Your task to perform on an android device: find which apps use the phone's location Image 0: 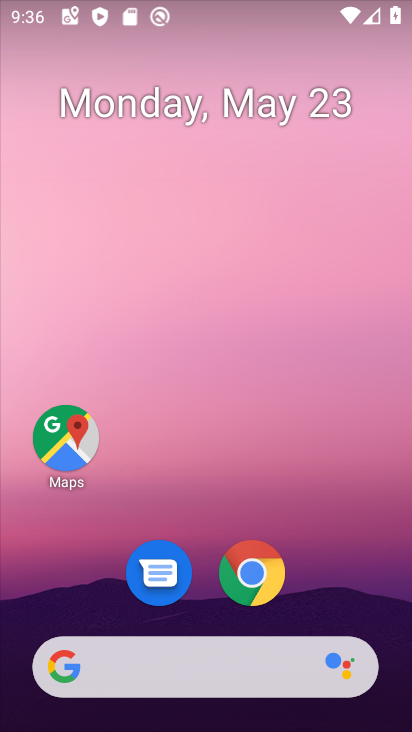
Step 0: drag from (366, 614) to (373, 184)
Your task to perform on an android device: find which apps use the phone's location Image 1: 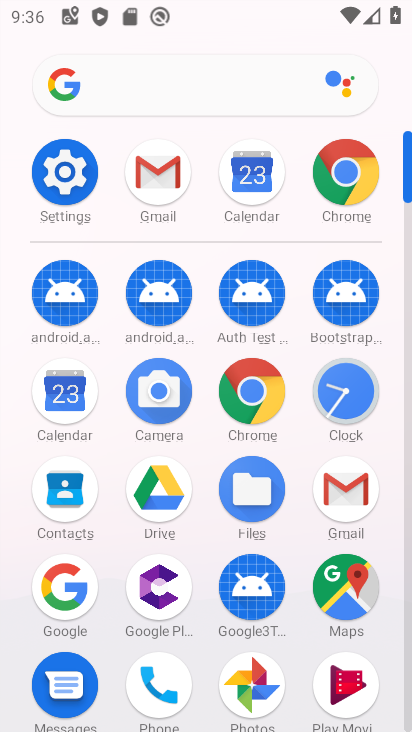
Step 1: click (84, 173)
Your task to perform on an android device: find which apps use the phone's location Image 2: 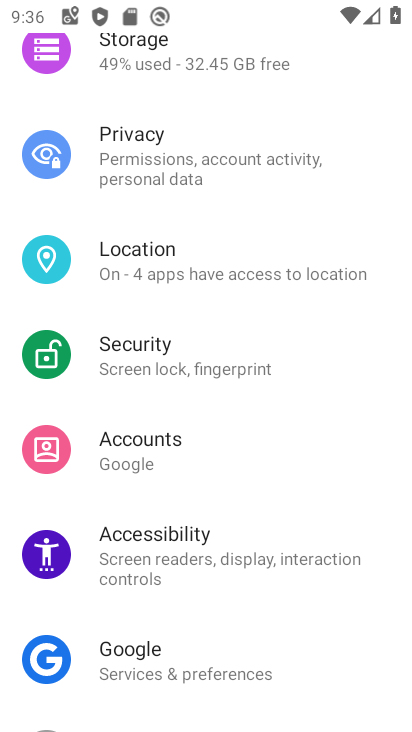
Step 2: drag from (391, 593) to (391, 411)
Your task to perform on an android device: find which apps use the phone's location Image 3: 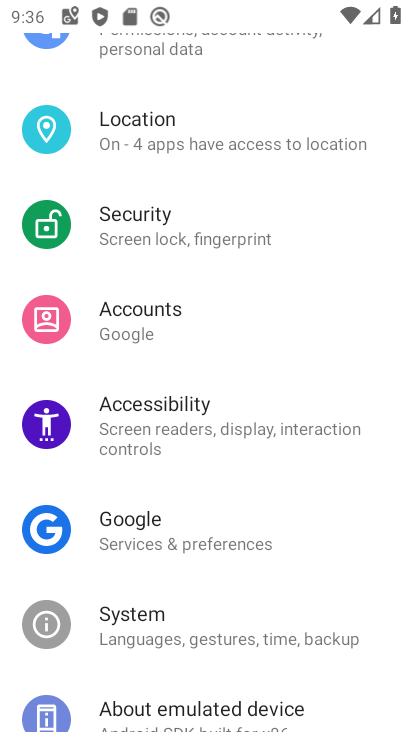
Step 3: drag from (376, 577) to (370, 417)
Your task to perform on an android device: find which apps use the phone's location Image 4: 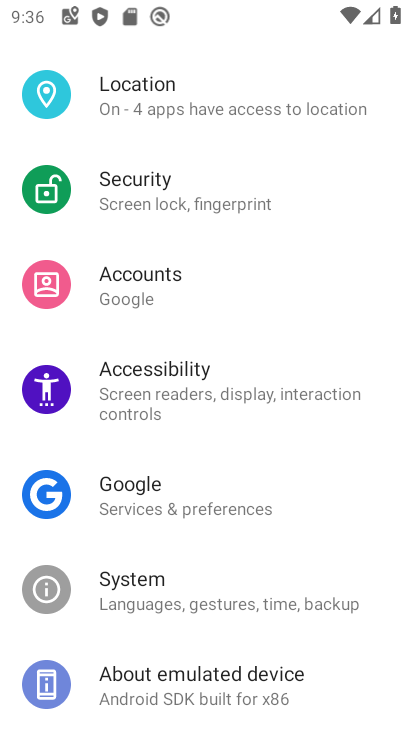
Step 4: drag from (374, 307) to (353, 453)
Your task to perform on an android device: find which apps use the phone's location Image 5: 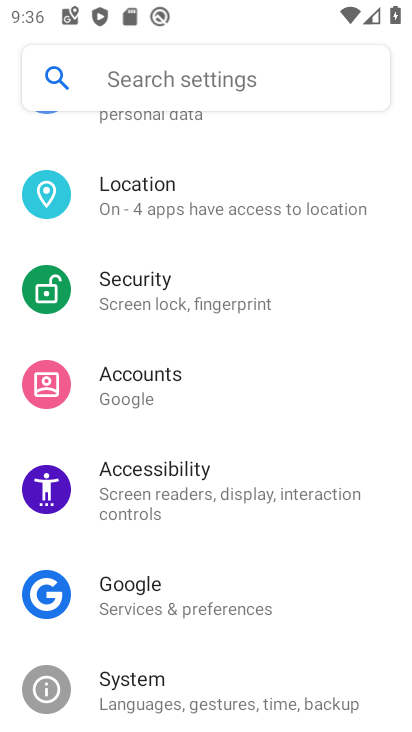
Step 5: drag from (359, 278) to (355, 459)
Your task to perform on an android device: find which apps use the phone's location Image 6: 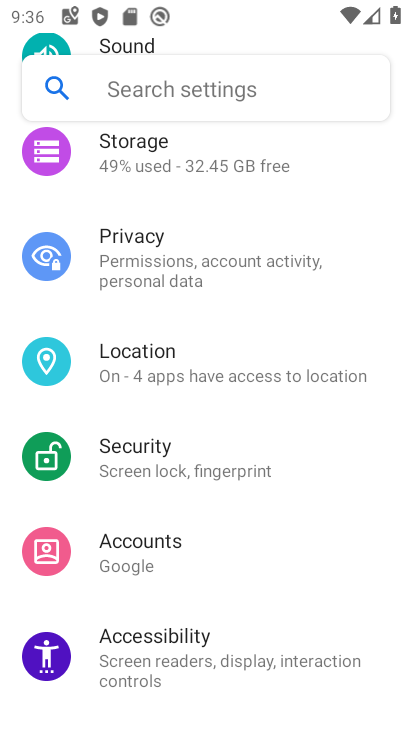
Step 6: drag from (348, 334) to (361, 456)
Your task to perform on an android device: find which apps use the phone's location Image 7: 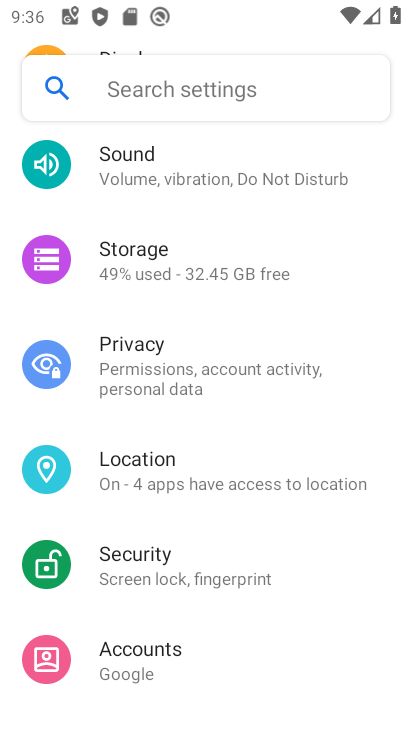
Step 7: click (227, 478)
Your task to perform on an android device: find which apps use the phone's location Image 8: 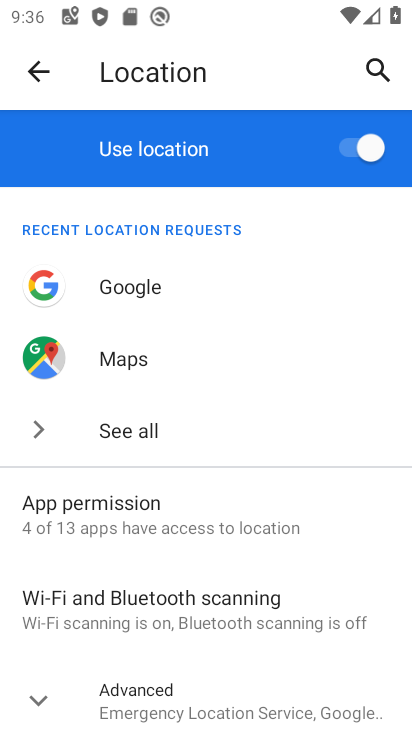
Step 8: click (256, 529)
Your task to perform on an android device: find which apps use the phone's location Image 9: 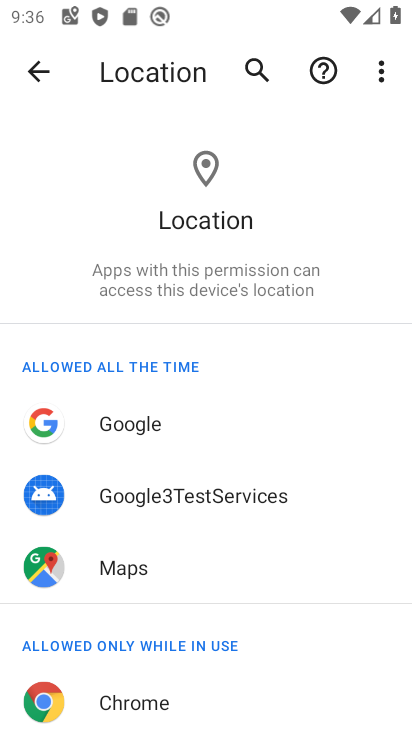
Step 9: drag from (348, 617) to (347, 517)
Your task to perform on an android device: find which apps use the phone's location Image 10: 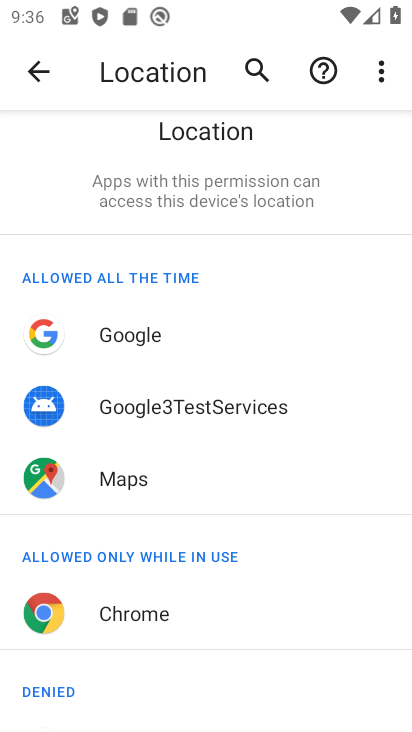
Step 10: drag from (351, 646) to (360, 522)
Your task to perform on an android device: find which apps use the phone's location Image 11: 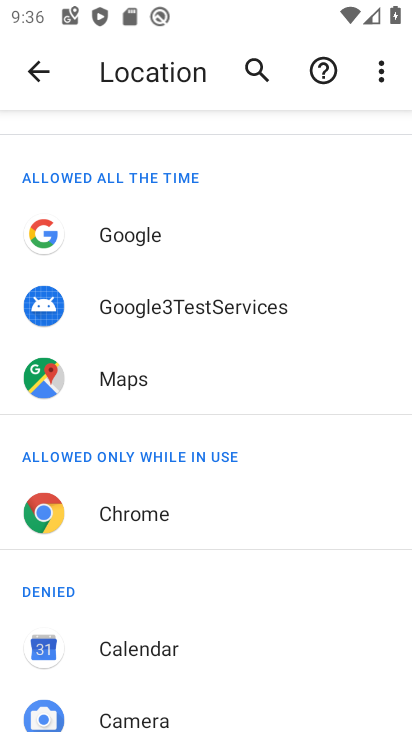
Step 11: drag from (348, 648) to (347, 537)
Your task to perform on an android device: find which apps use the phone's location Image 12: 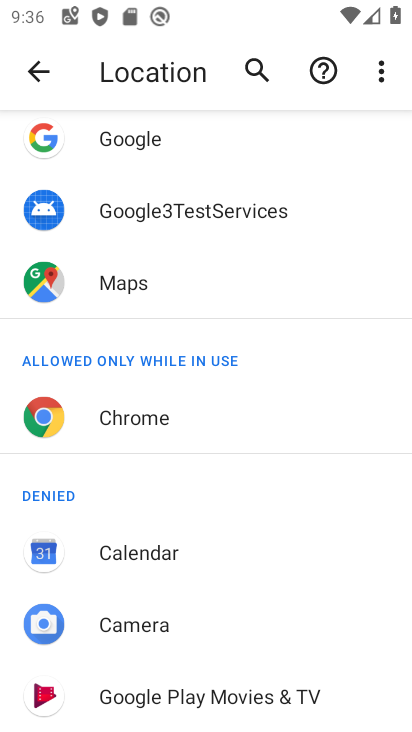
Step 12: drag from (354, 671) to (350, 557)
Your task to perform on an android device: find which apps use the phone's location Image 13: 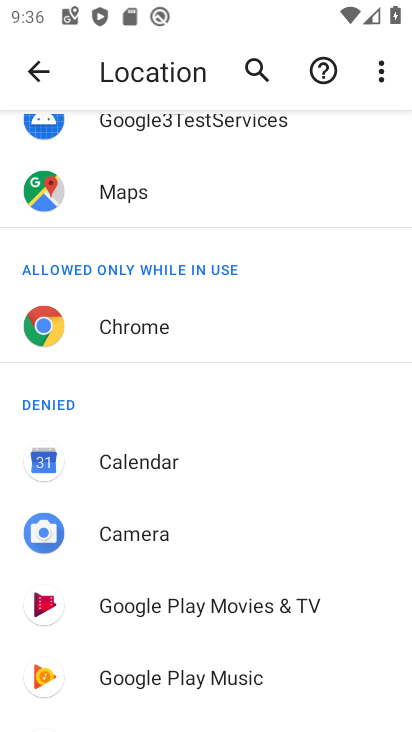
Step 13: drag from (341, 673) to (336, 554)
Your task to perform on an android device: find which apps use the phone's location Image 14: 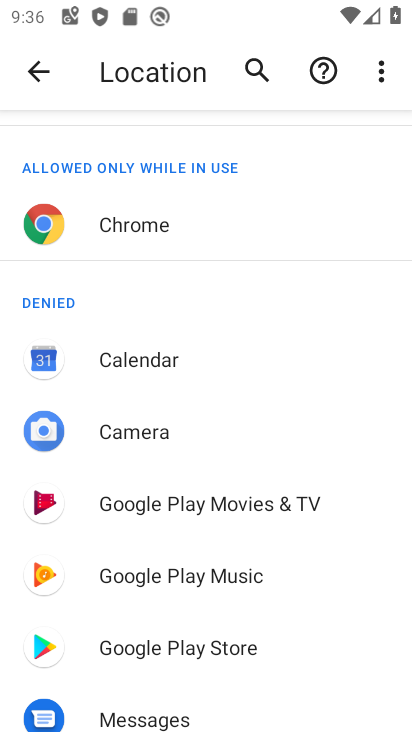
Step 14: drag from (326, 665) to (329, 566)
Your task to perform on an android device: find which apps use the phone's location Image 15: 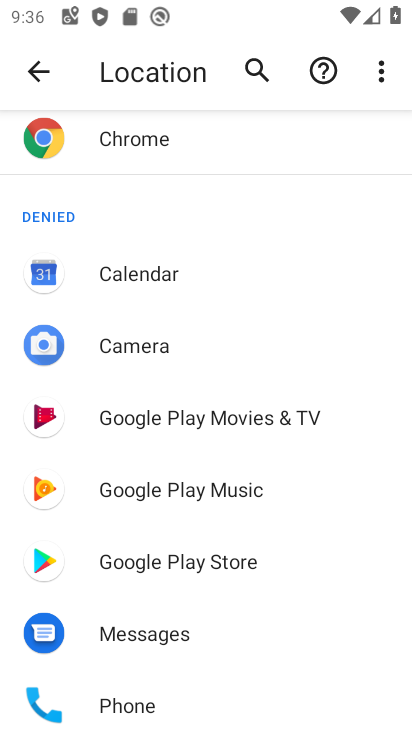
Step 15: drag from (316, 663) to (305, 543)
Your task to perform on an android device: find which apps use the phone's location Image 16: 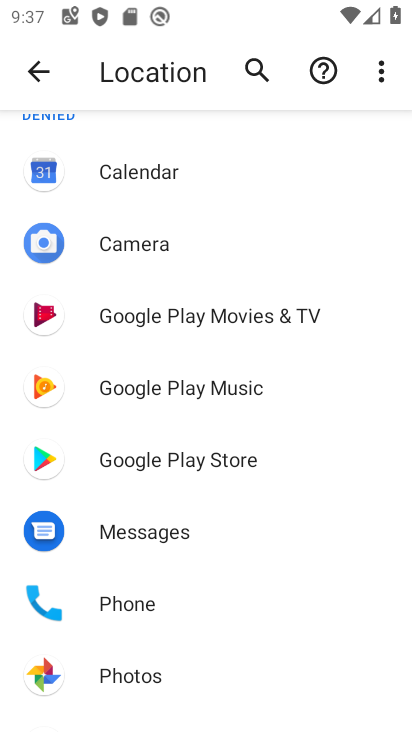
Step 16: drag from (286, 634) to (287, 576)
Your task to perform on an android device: find which apps use the phone's location Image 17: 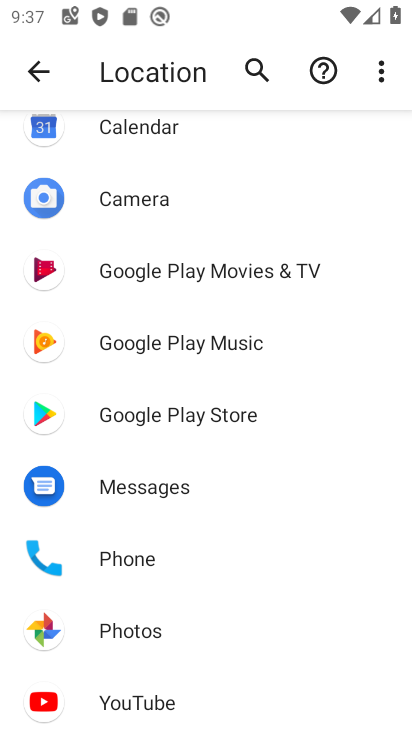
Step 17: click (234, 645)
Your task to perform on an android device: find which apps use the phone's location Image 18: 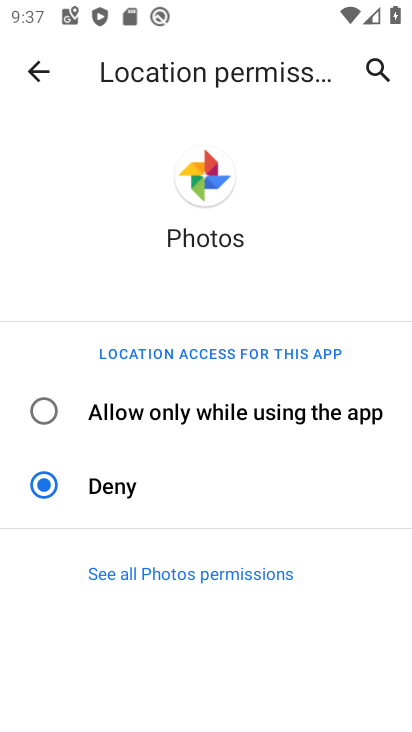
Step 18: click (297, 417)
Your task to perform on an android device: find which apps use the phone's location Image 19: 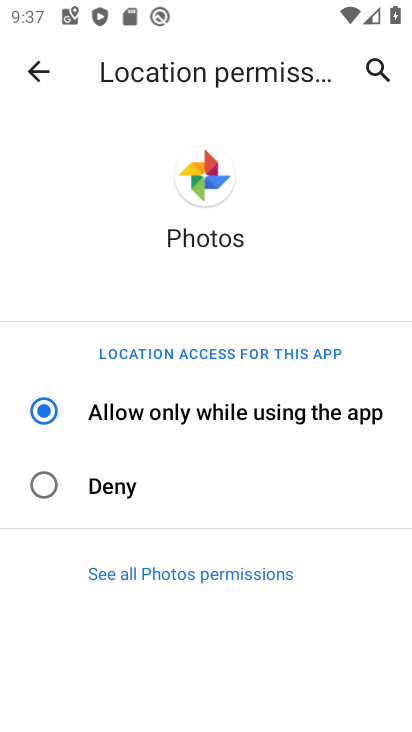
Step 19: task complete